Your task to perform on an android device: open app "Microsoft Excel" (install if not already installed) and go to login screen Image 0: 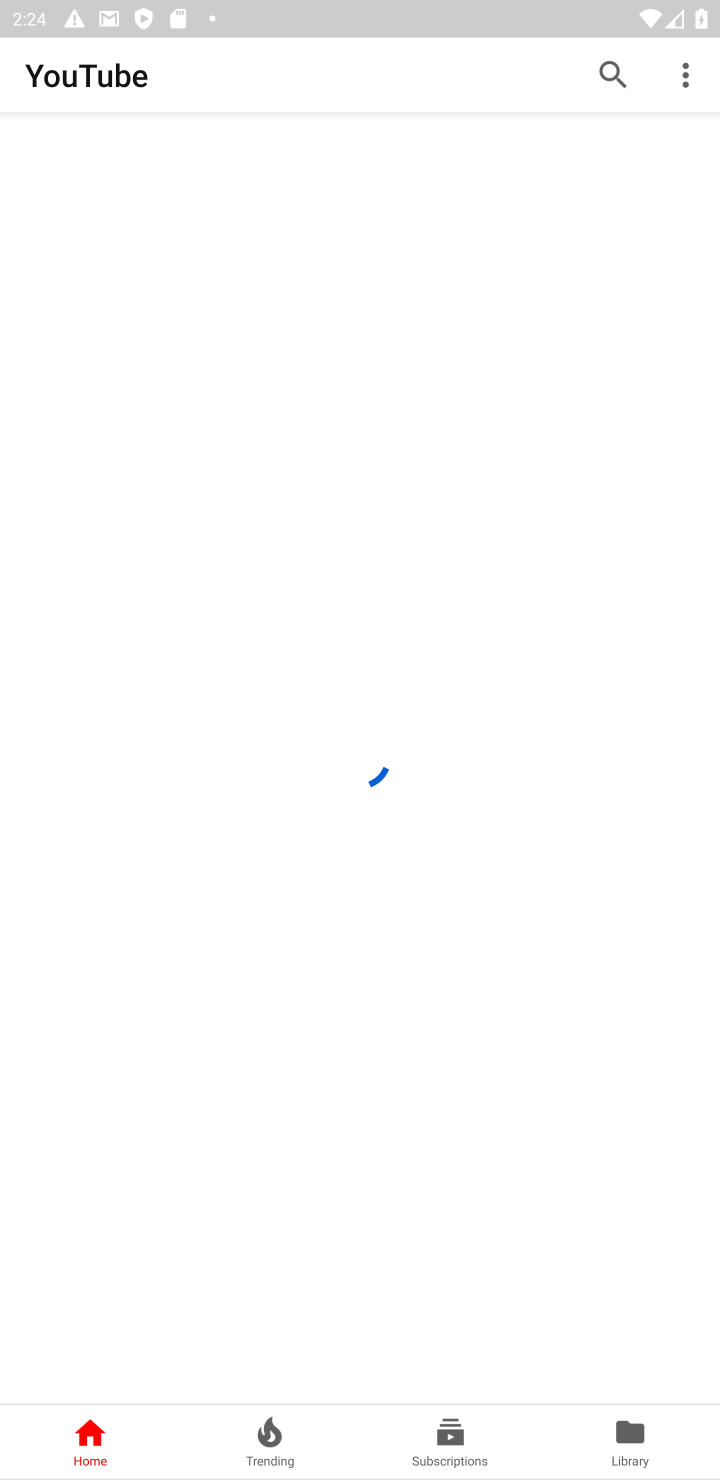
Step 0: press home button
Your task to perform on an android device: open app "Microsoft Excel" (install if not already installed) and go to login screen Image 1: 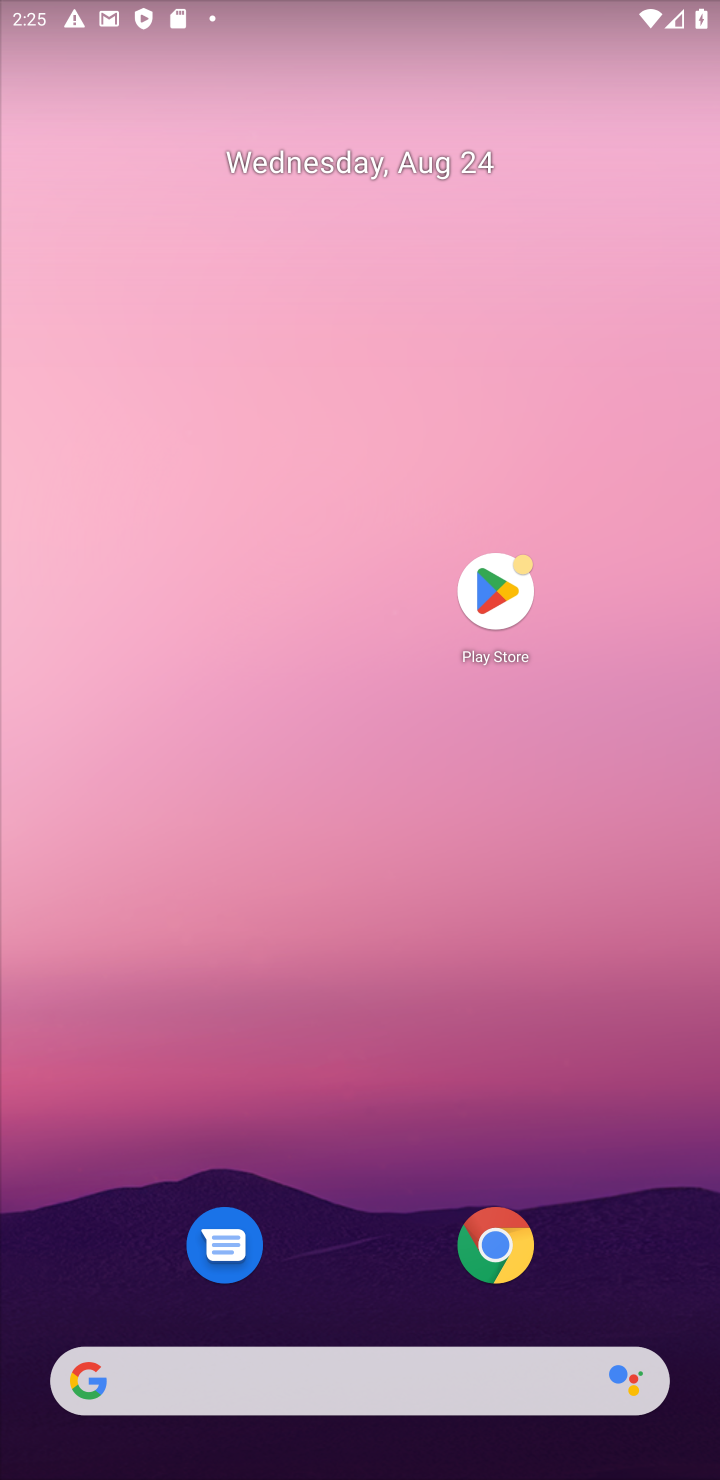
Step 1: click (508, 586)
Your task to perform on an android device: open app "Microsoft Excel" (install if not already installed) and go to login screen Image 2: 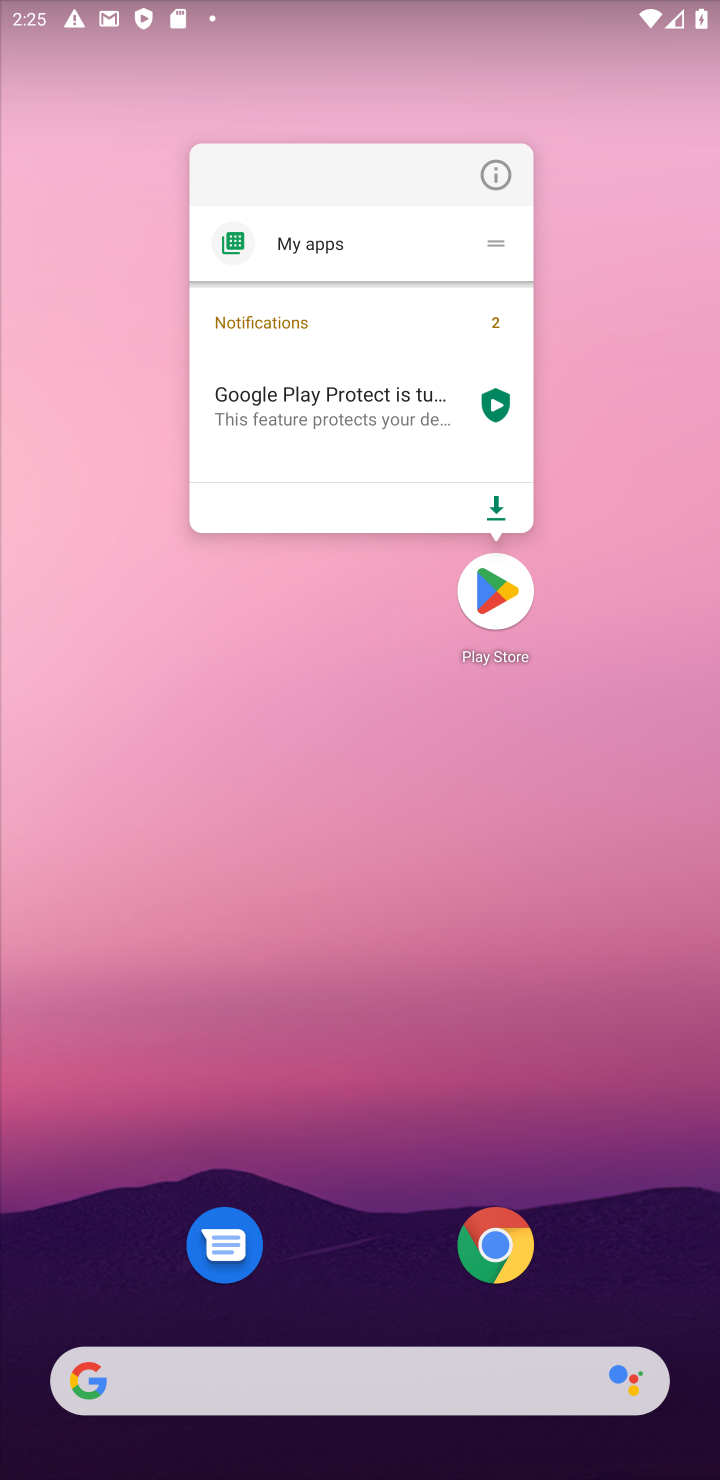
Step 2: click (502, 587)
Your task to perform on an android device: open app "Microsoft Excel" (install if not already installed) and go to login screen Image 3: 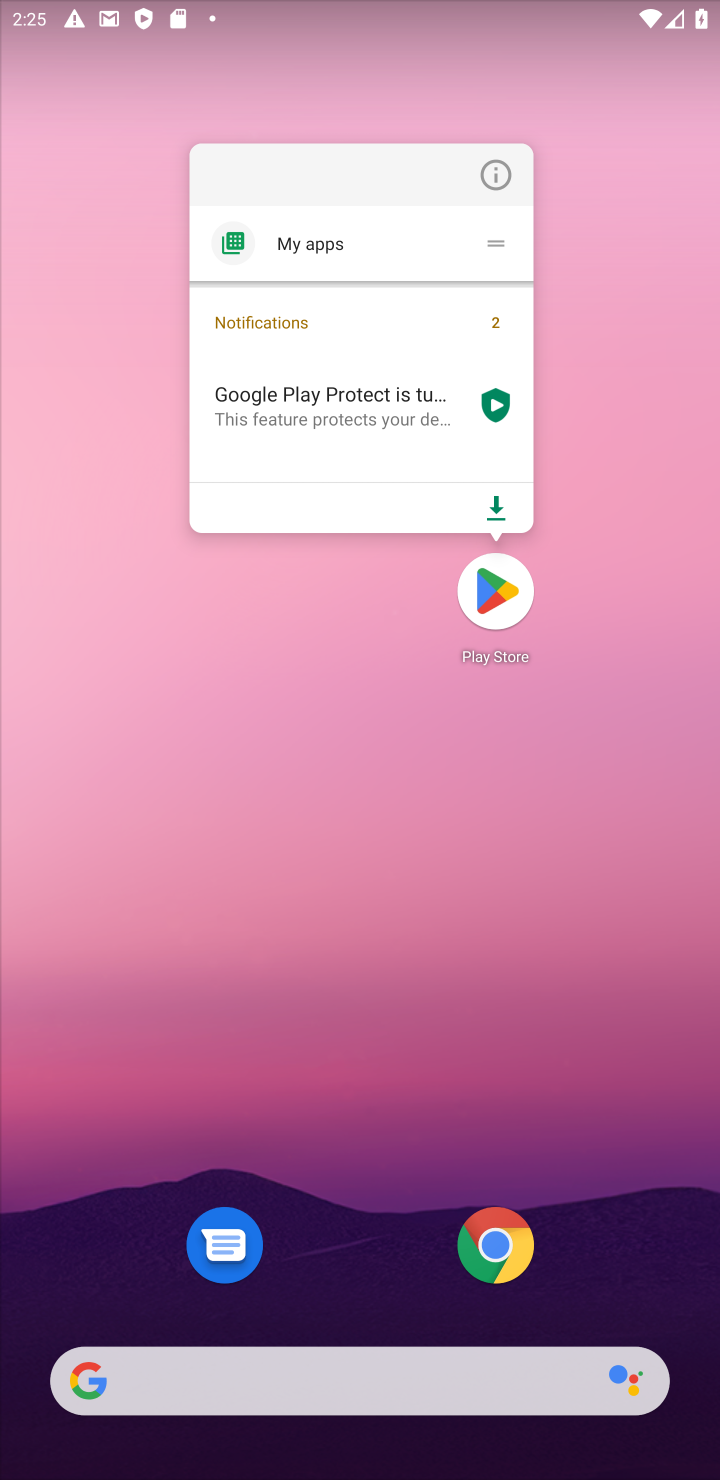
Step 3: click (502, 597)
Your task to perform on an android device: open app "Microsoft Excel" (install if not already installed) and go to login screen Image 4: 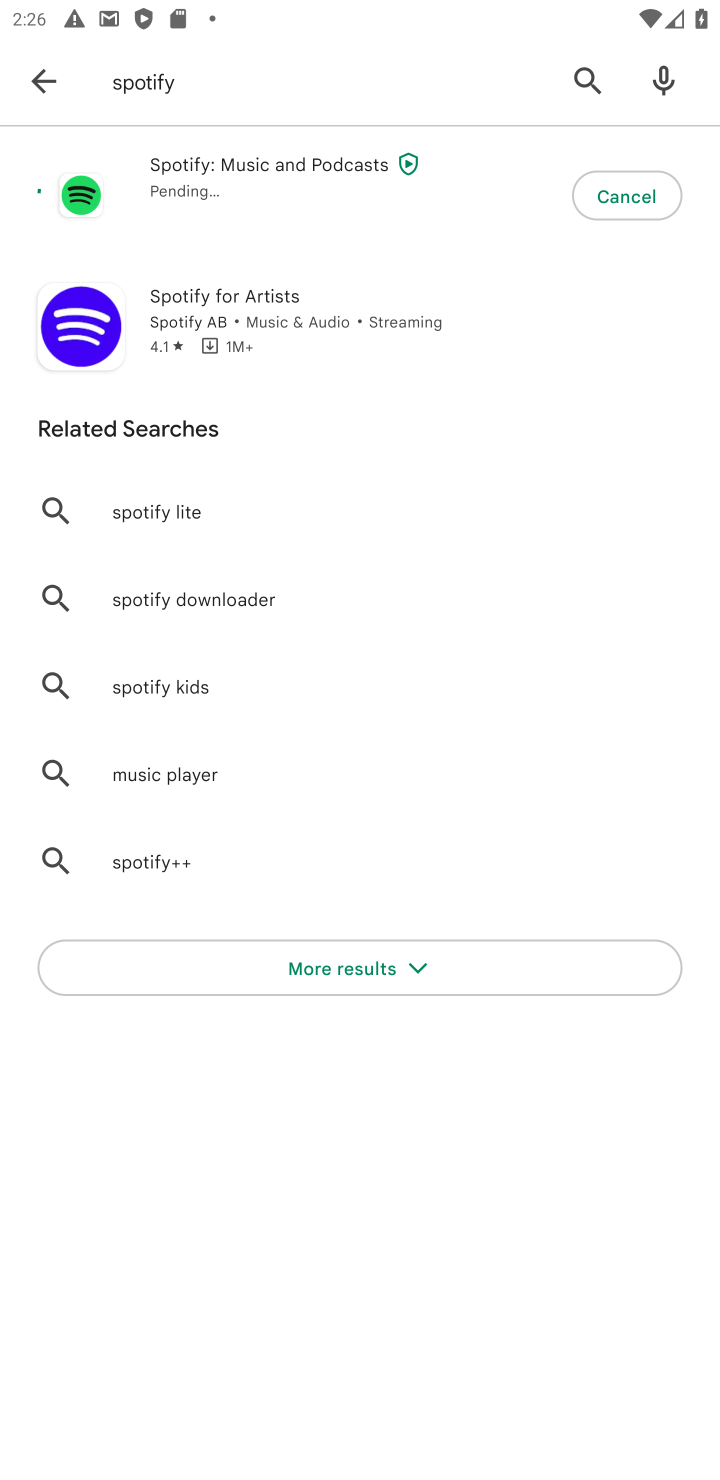
Step 4: click (593, 77)
Your task to perform on an android device: open app "Microsoft Excel" (install if not already installed) and go to login screen Image 5: 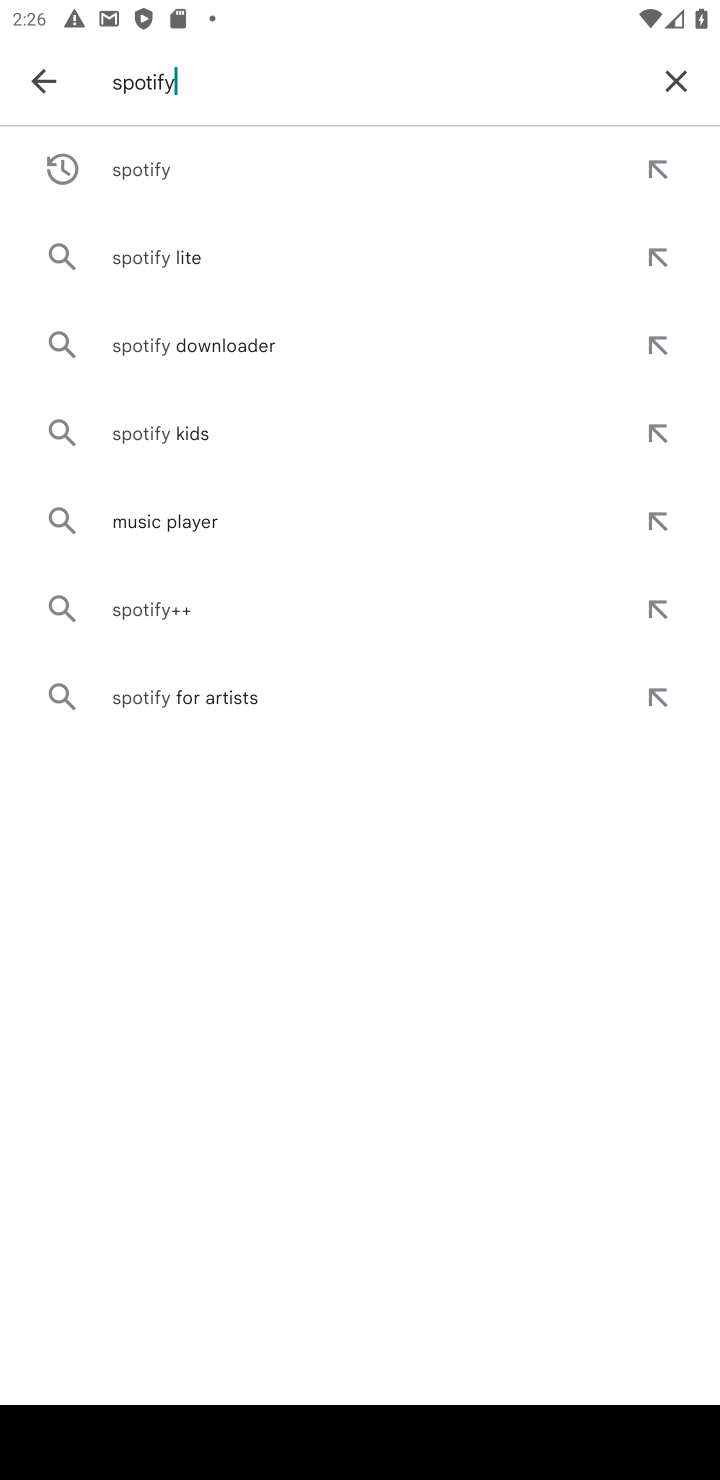
Step 5: click (669, 77)
Your task to perform on an android device: open app "Microsoft Excel" (install if not already installed) and go to login screen Image 6: 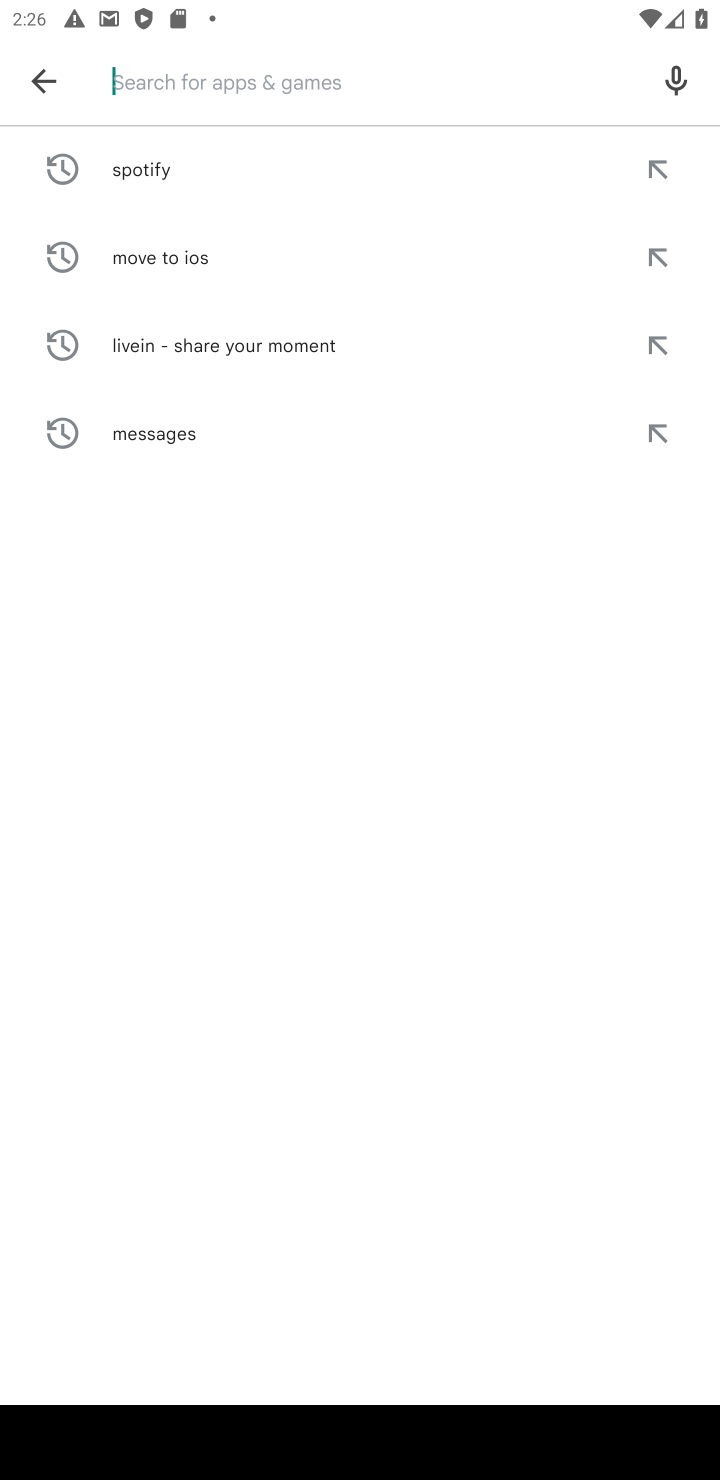
Step 6: type "Microsoft Excel"
Your task to perform on an android device: open app "Microsoft Excel" (install if not already installed) and go to login screen Image 7: 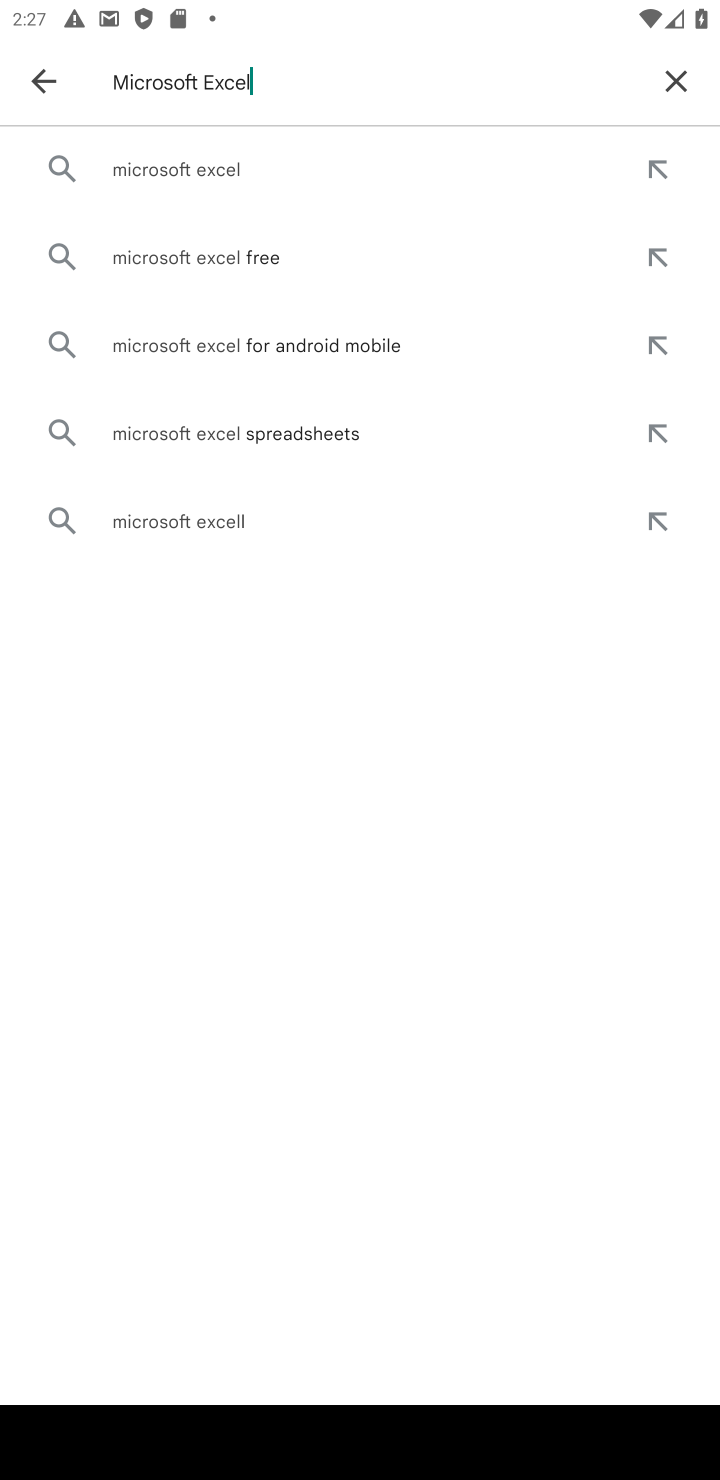
Step 7: click (209, 157)
Your task to perform on an android device: open app "Microsoft Excel" (install if not already installed) and go to login screen Image 8: 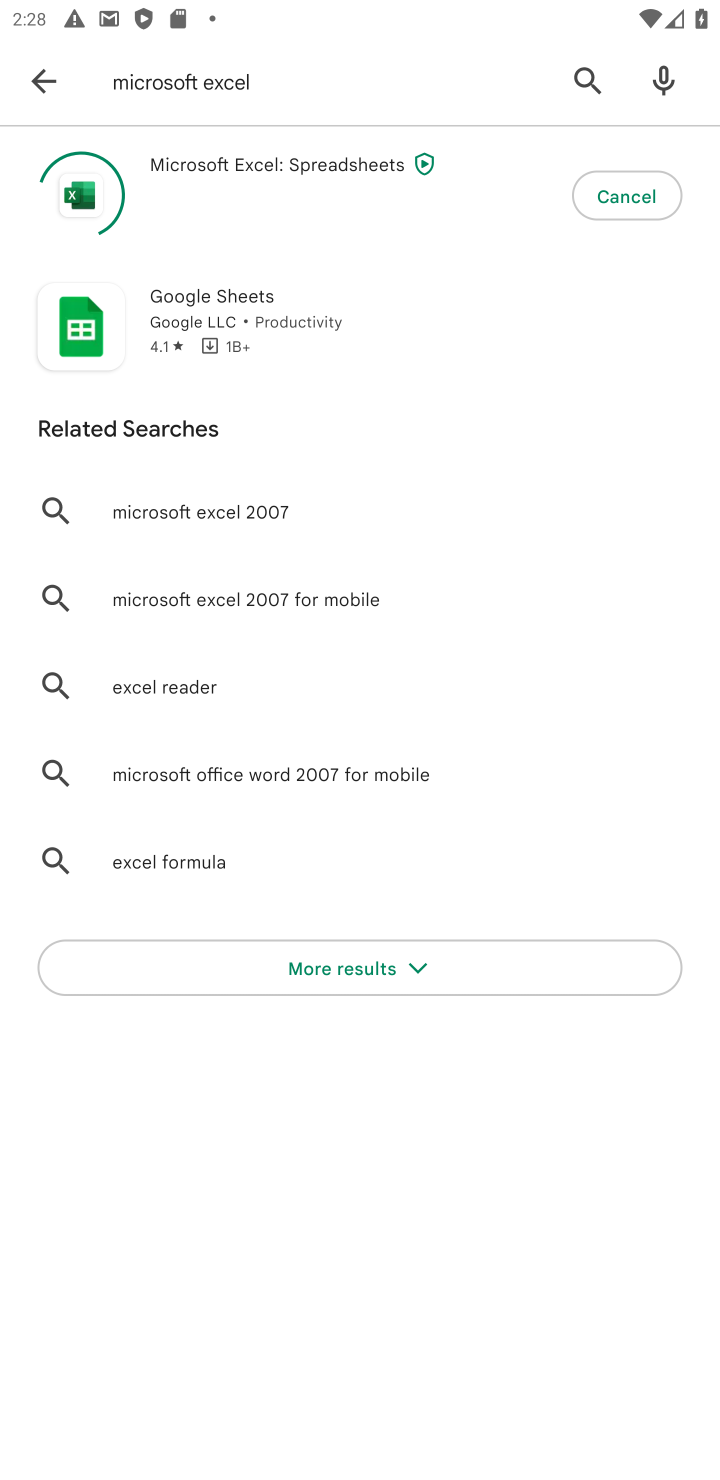
Step 8: task complete